Your task to perform on an android device: check the backup settings in the google photos Image 0: 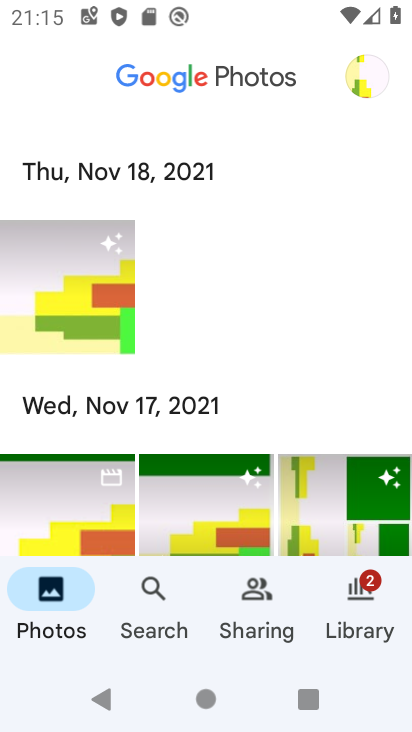
Step 0: press home button
Your task to perform on an android device: check the backup settings in the google photos Image 1: 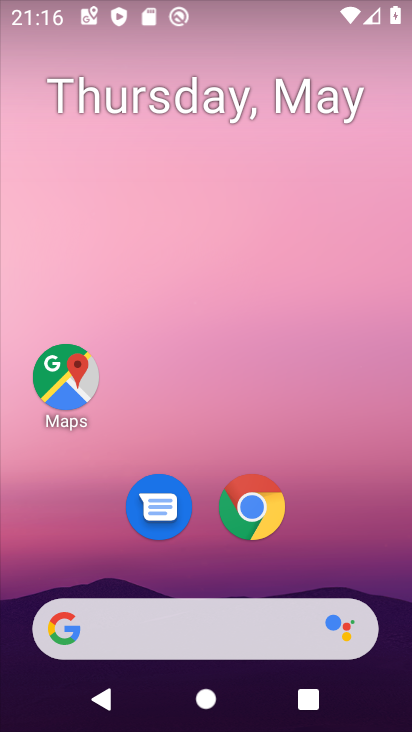
Step 1: drag from (286, 657) to (216, 166)
Your task to perform on an android device: check the backup settings in the google photos Image 2: 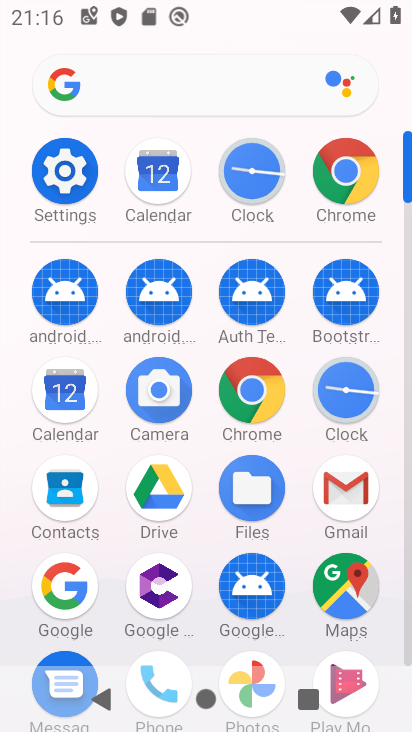
Step 2: click (246, 661)
Your task to perform on an android device: check the backup settings in the google photos Image 3: 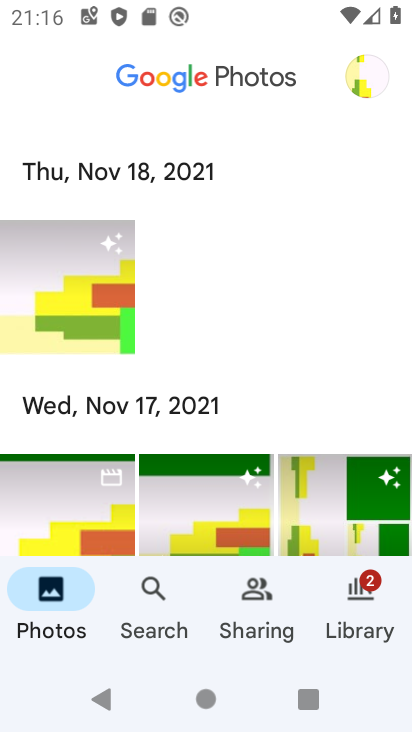
Step 3: click (355, 77)
Your task to perform on an android device: check the backup settings in the google photos Image 4: 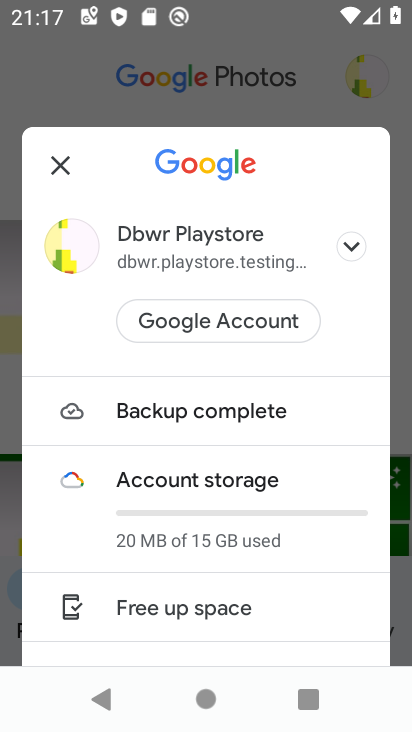
Step 4: click (200, 412)
Your task to perform on an android device: check the backup settings in the google photos Image 5: 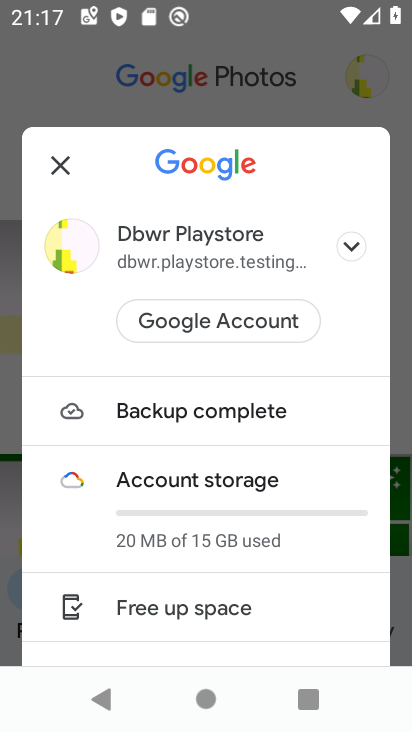
Step 5: task complete